Your task to perform on an android device: check google app version Image 0: 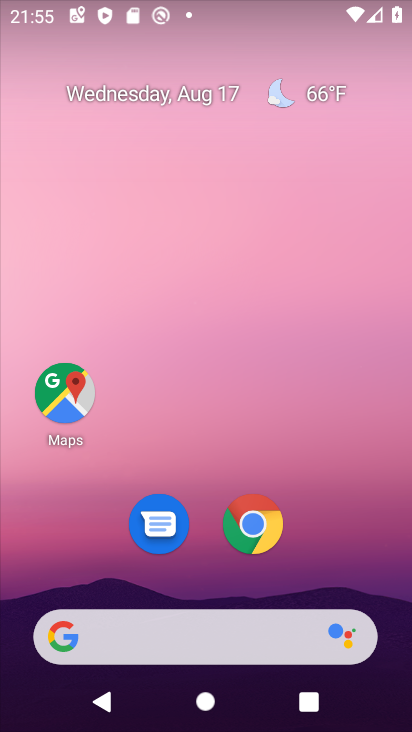
Step 0: click (209, 642)
Your task to perform on an android device: check google app version Image 1: 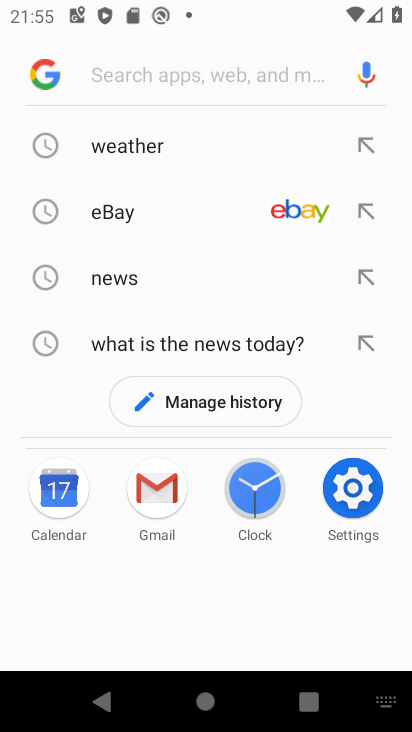
Step 1: click (42, 63)
Your task to perform on an android device: check google app version Image 2: 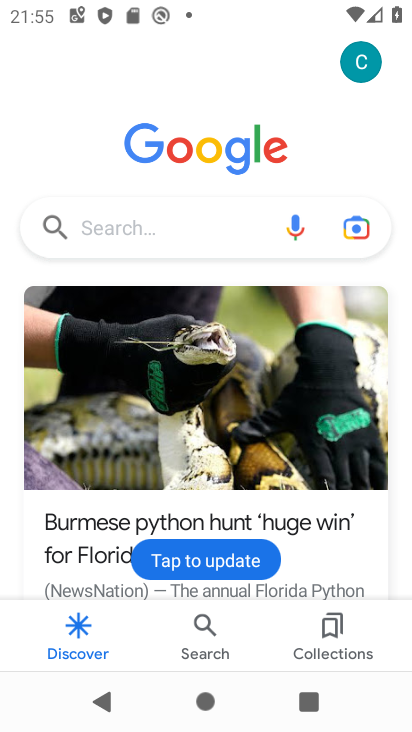
Step 2: click (360, 65)
Your task to perform on an android device: check google app version Image 3: 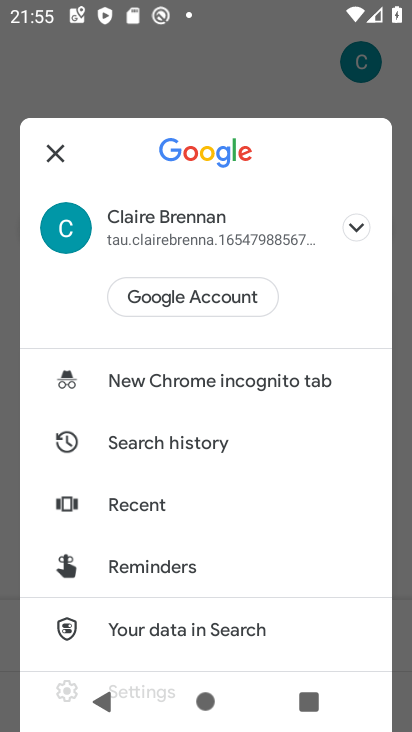
Step 3: drag from (204, 482) to (224, 166)
Your task to perform on an android device: check google app version Image 4: 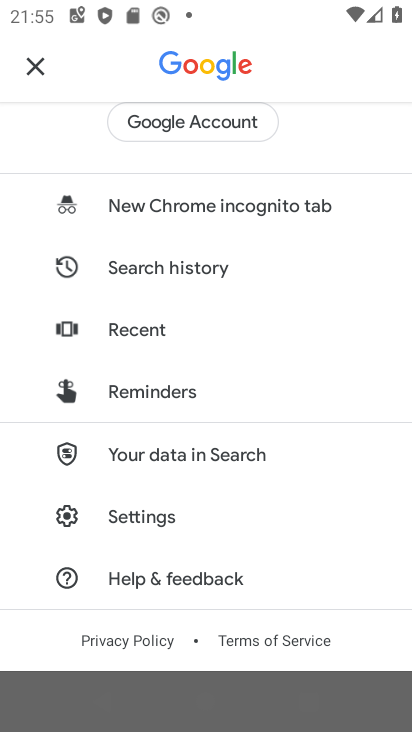
Step 4: click (155, 510)
Your task to perform on an android device: check google app version Image 5: 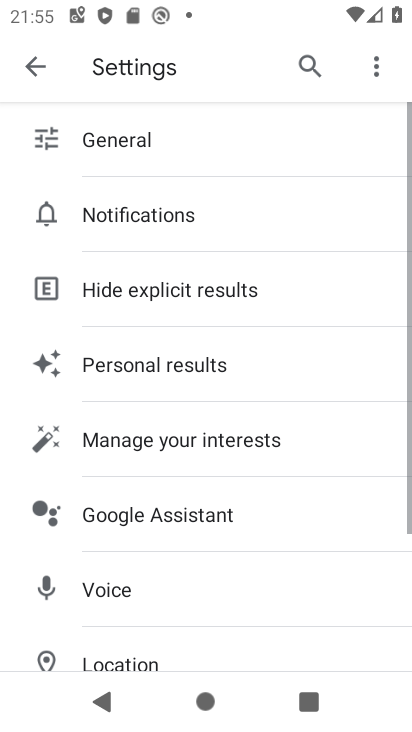
Step 5: drag from (204, 610) to (237, 118)
Your task to perform on an android device: check google app version Image 6: 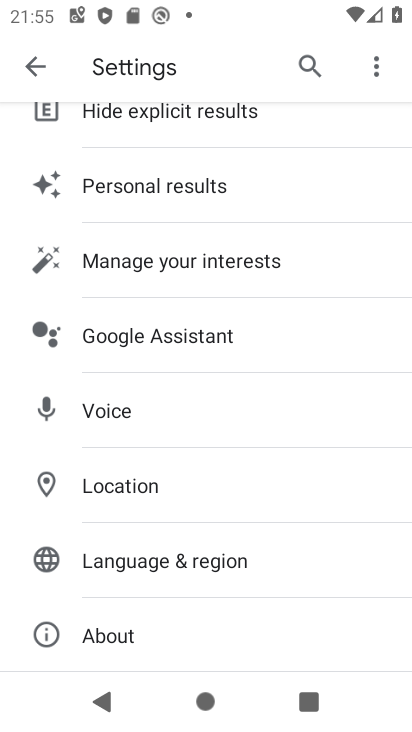
Step 6: click (124, 631)
Your task to perform on an android device: check google app version Image 7: 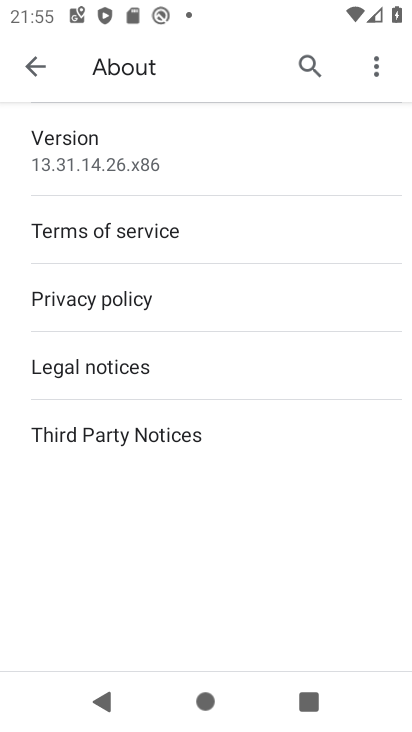
Step 7: task complete